Your task to perform on an android device: Play the latest video from the BBC Image 0: 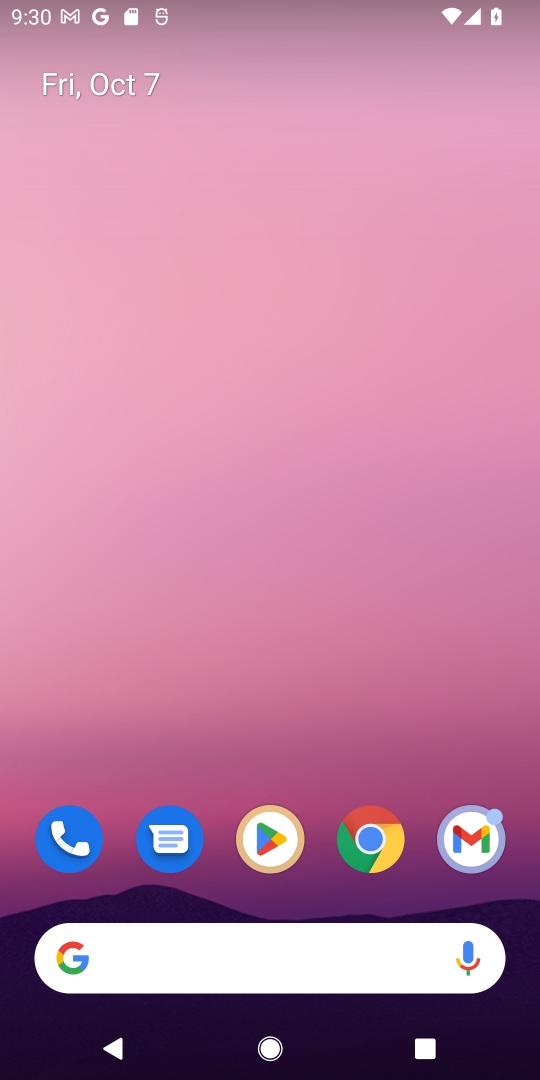
Step 0: click (382, 840)
Your task to perform on an android device: Play the latest video from the BBC Image 1: 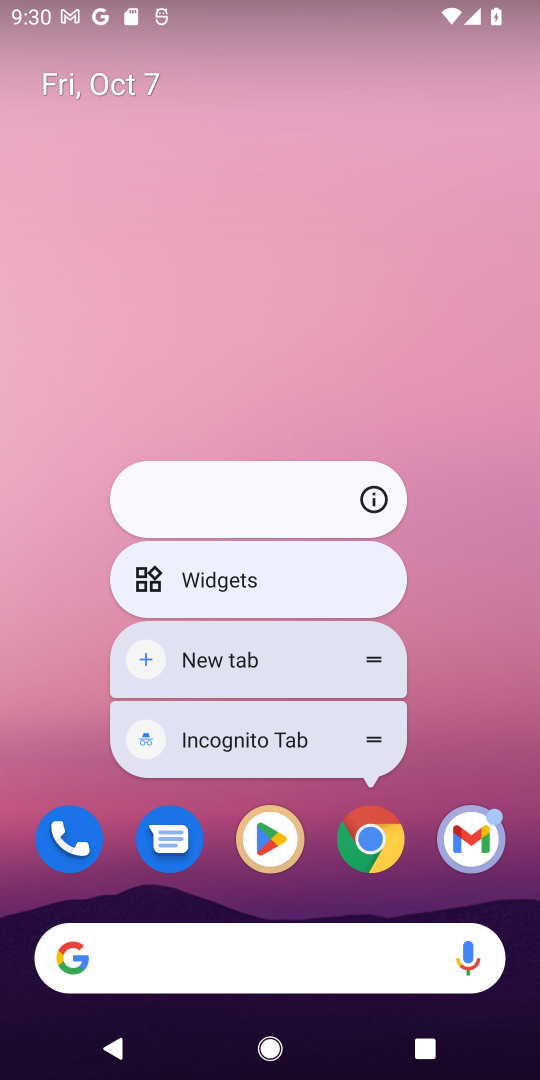
Step 1: click (362, 839)
Your task to perform on an android device: Play the latest video from the BBC Image 2: 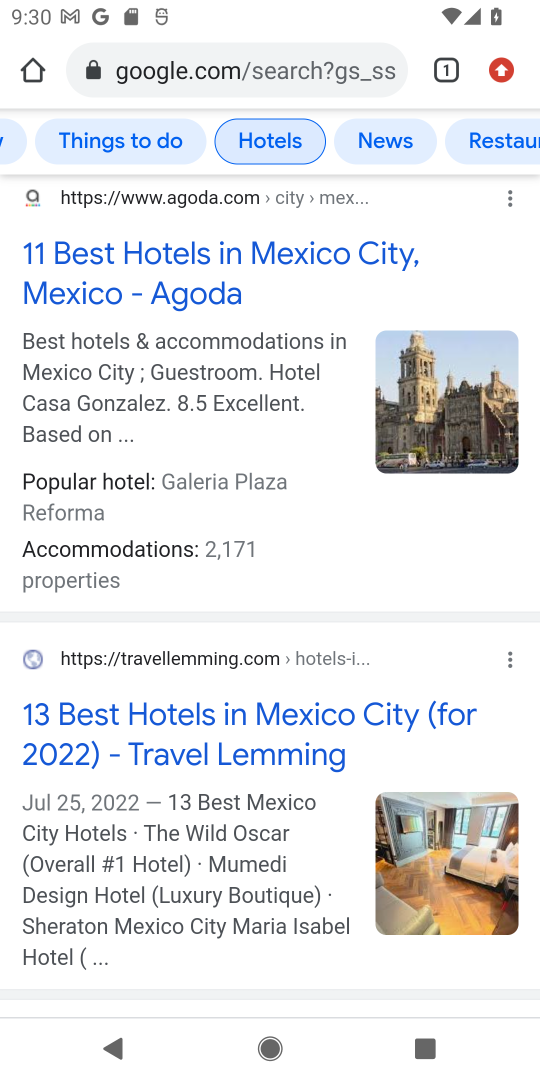
Step 2: press home button
Your task to perform on an android device: Play the latest video from the BBC Image 3: 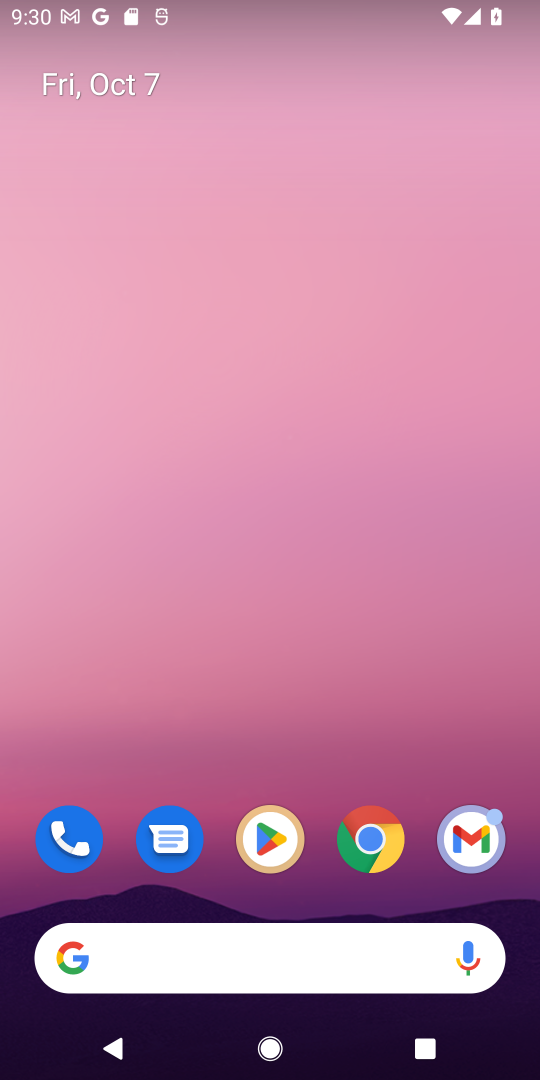
Step 3: click (373, 842)
Your task to perform on an android device: Play the latest video from the BBC Image 4: 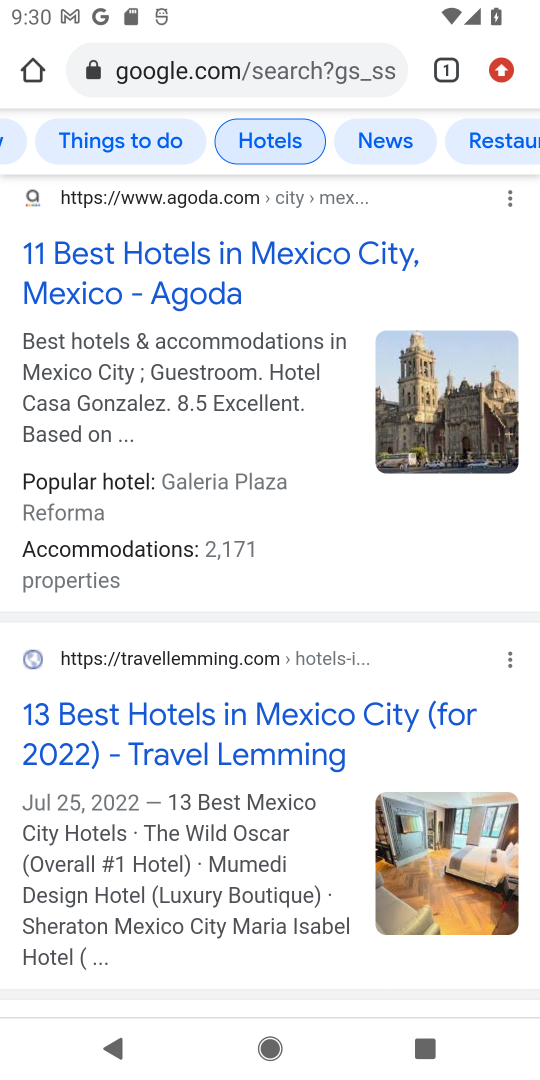
Step 4: click (311, 67)
Your task to perform on an android device: Play the latest video from the BBC Image 5: 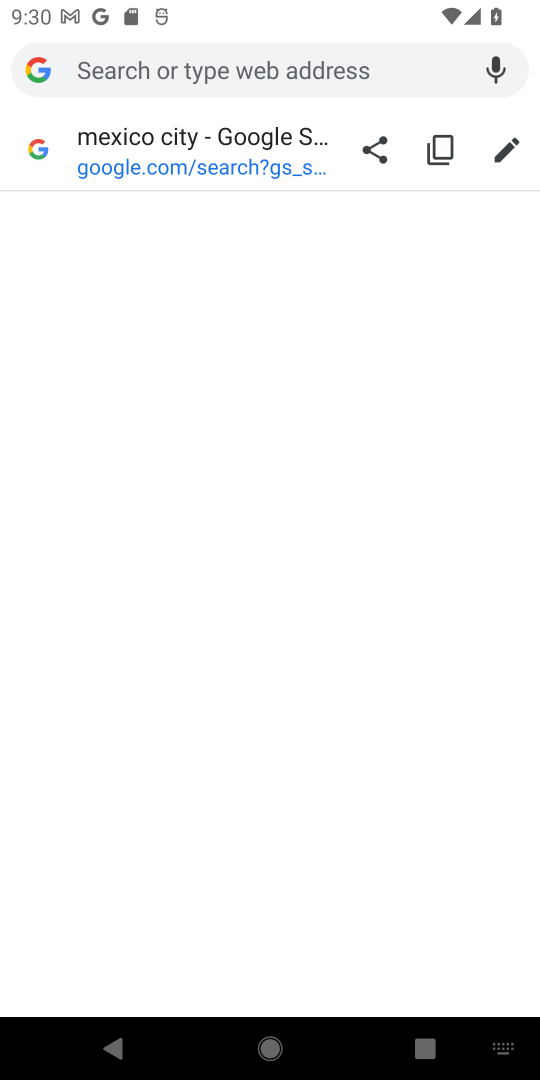
Step 5: type "bbc"
Your task to perform on an android device: Play the latest video from the BBC Image 6: 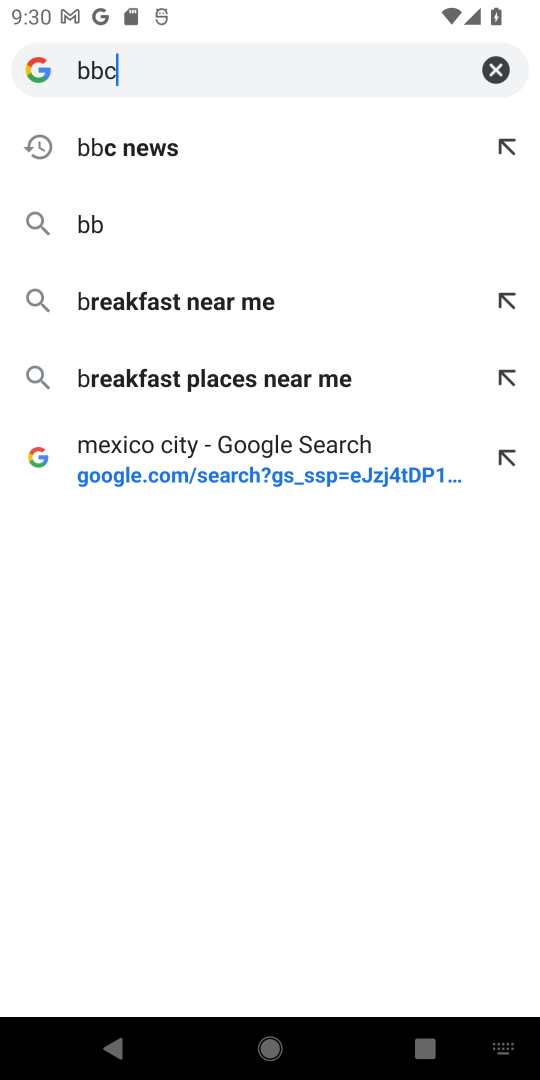
Step 6: type ""
Your task to perform on an android device: Play the latest video from the BBC Image 7: 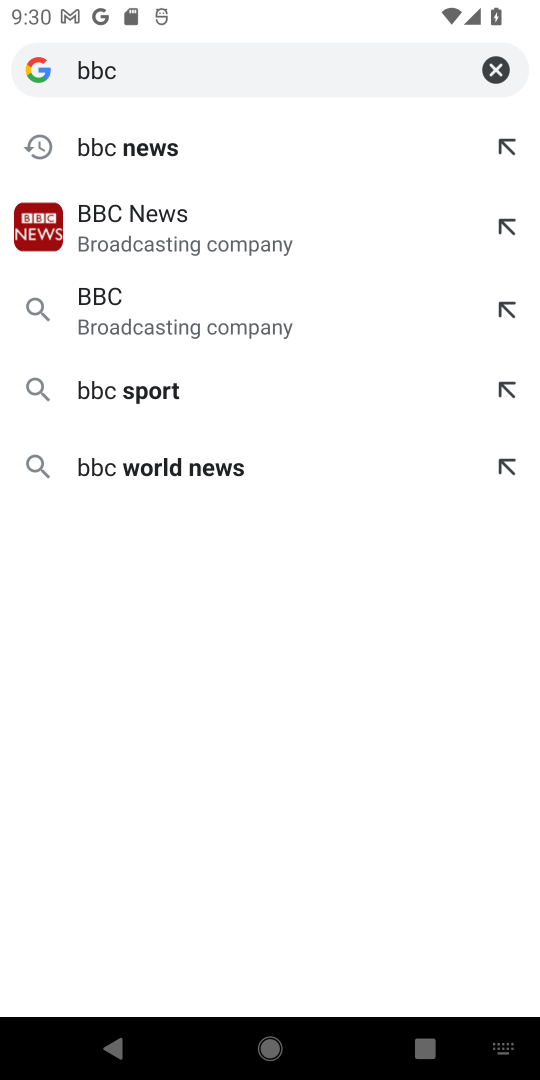
Step 7: click (157, 390)
Your task to perform on an android device: Play the latest video from the BBC Image 8: 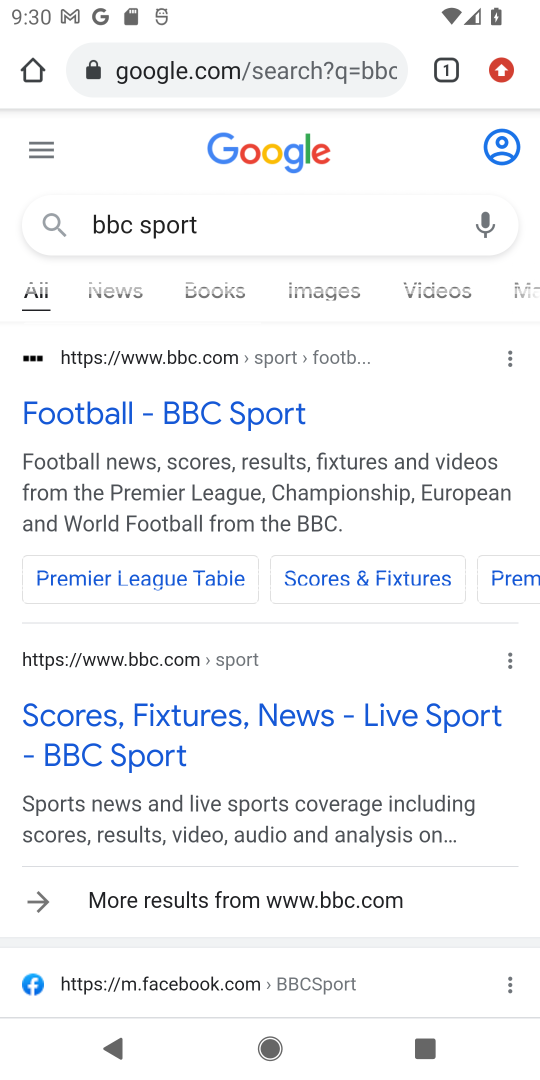
Step 8: drag from (454, 649) to (494, 377)
Your task to perform on an android device: Play the latest video from the BBC Image 9: 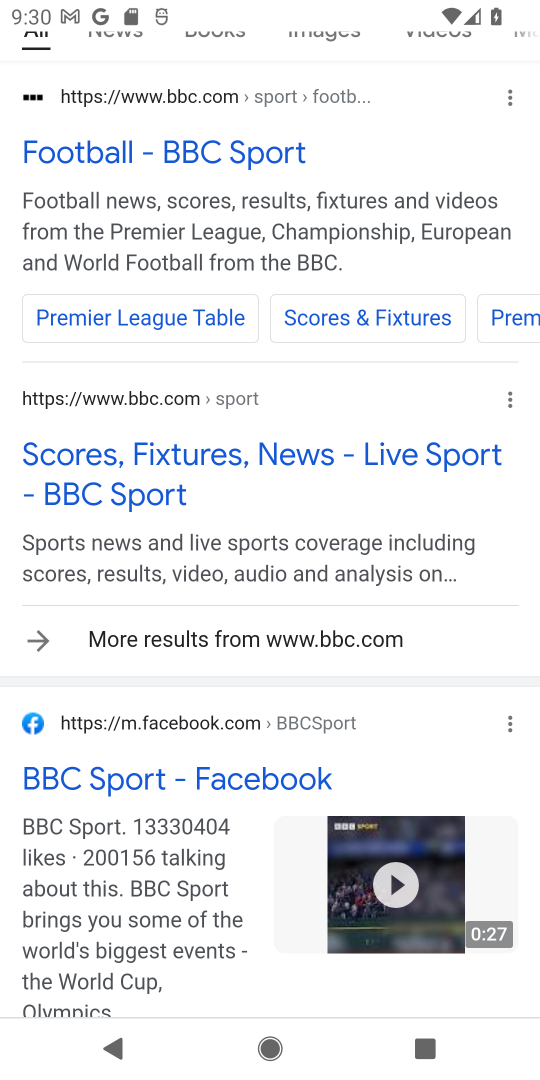
Step 9: drag from (311, 360) to (315, 966)
Your task to perform on an android device: Play the latest video from the BBC Image 10: 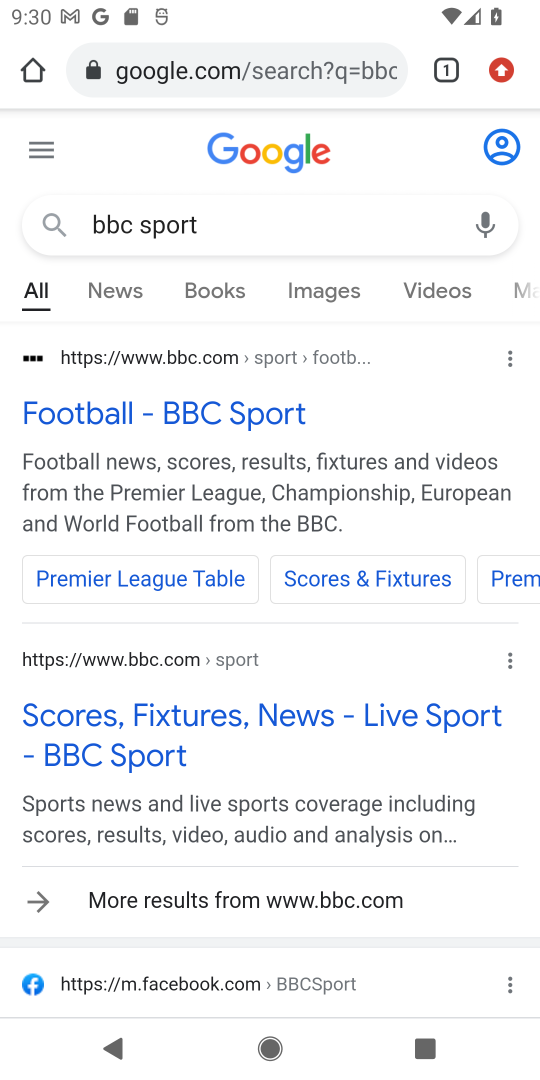
Step 10: click (111, 291)
Your task to perform on an android device: Play the latest video from the BBC Image 11: 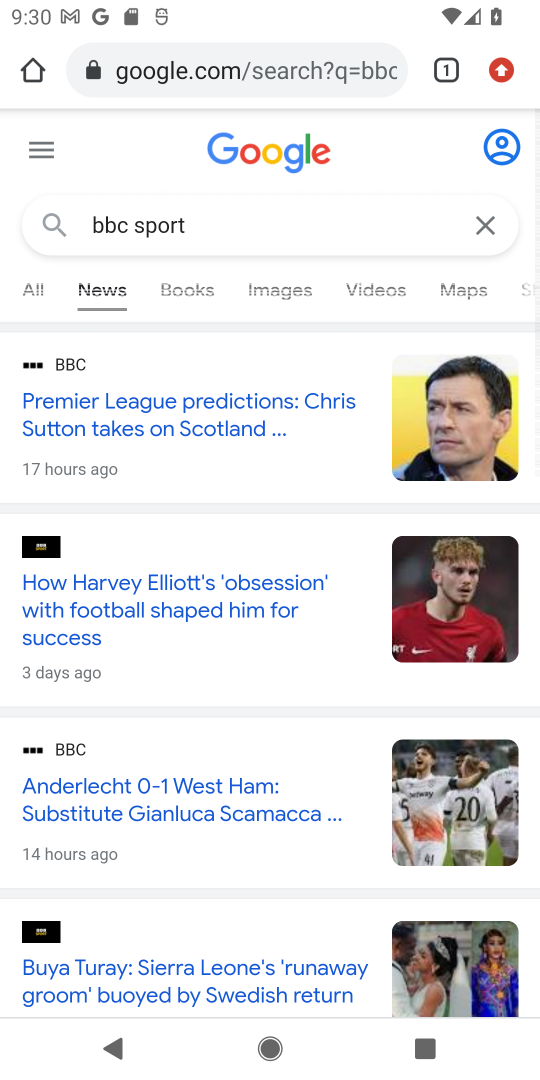
Step 11: click (381, 286)
Your task to perform on an android device: Play the latest video from the BBC Image 12: 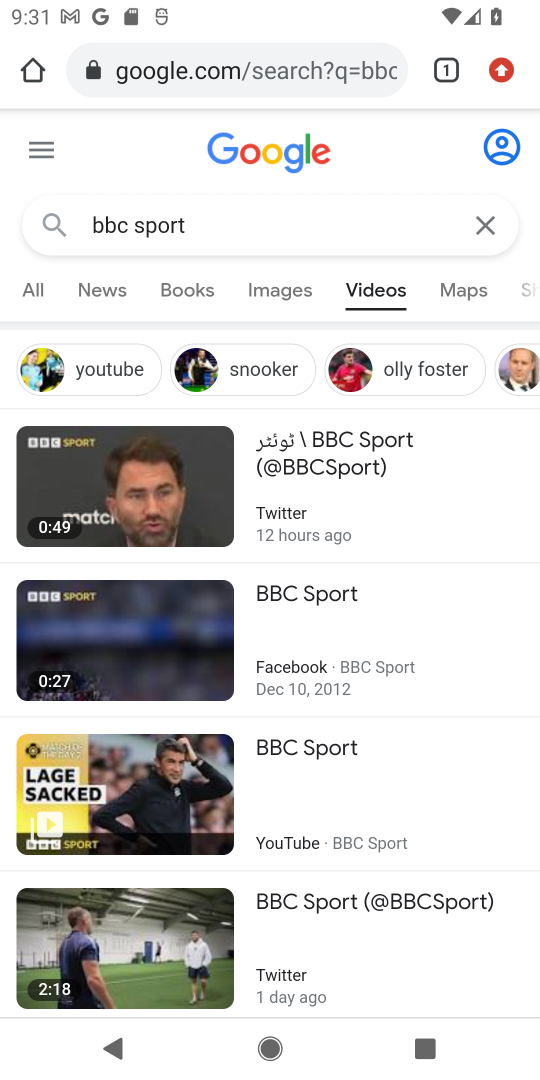
Step 12: task complete